Your task to perform on an android device: turn on data saver in the chrome app Image 0: 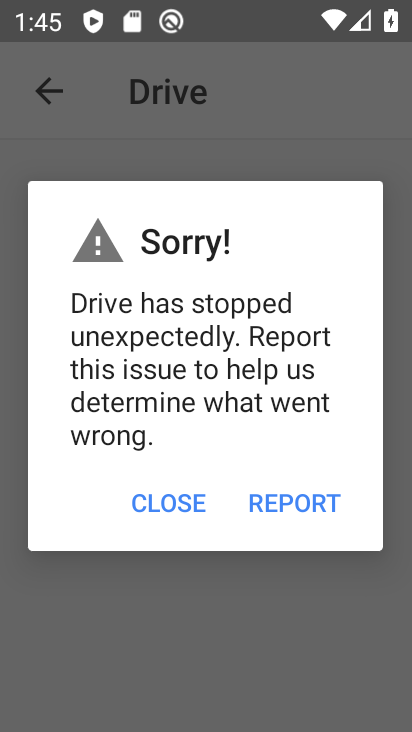
Step 0: press home button
Your task to perform on an android device: turn on data saver in the chrome app Image 1: 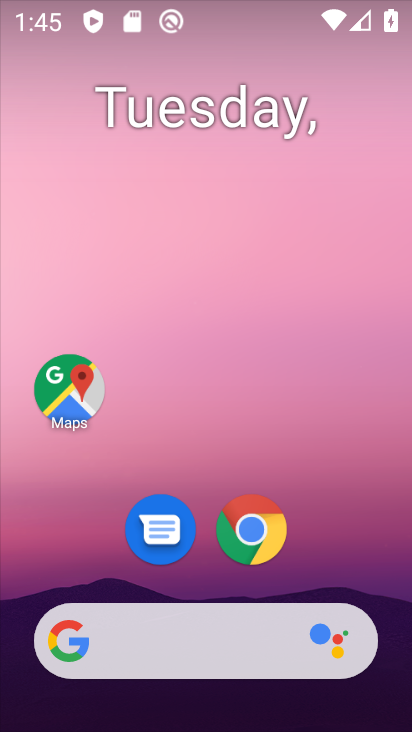
Step 1: click (251, 531)
Your task to perform on an android device: turn on data saver in the chrome app Image 2: 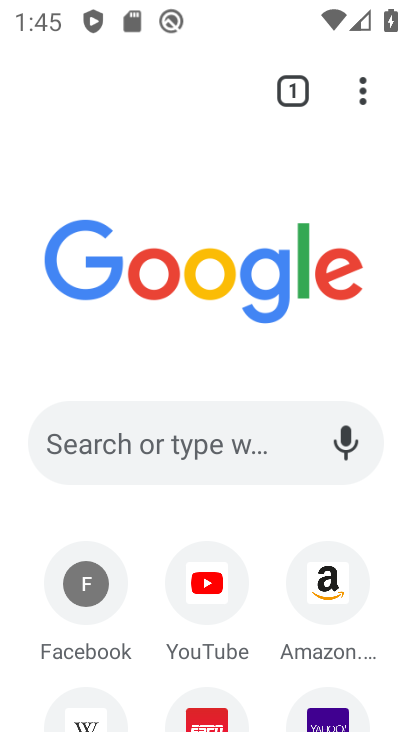
Step 2: click (356, 93)
Your task to perform on an android device: turn on data saver in the chrome app Image 3: 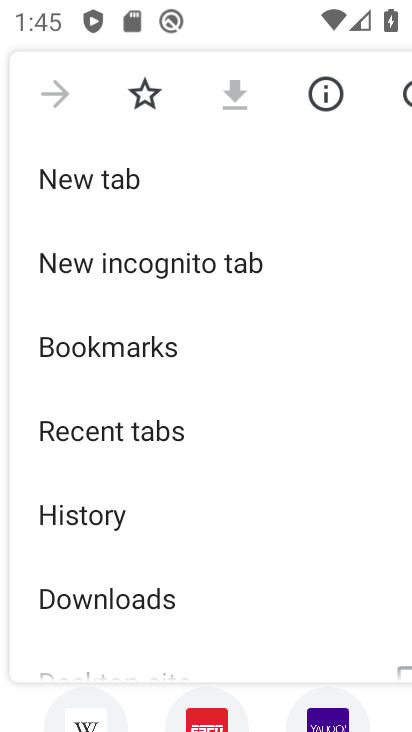
Step 3: drag from (174, 574) to (206, 266)
Your task to perform on an android device: turn on data saver in the chrome app Image 4: 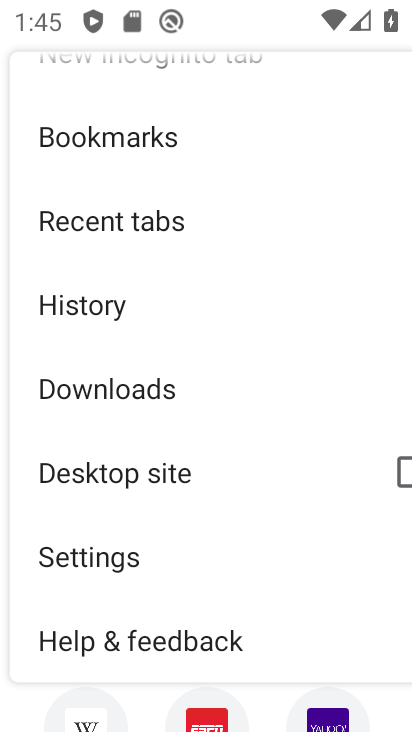
Step 4: click (112, 560)
Your task to perform on an android device: turn on data saver in the chrome app Image 5: 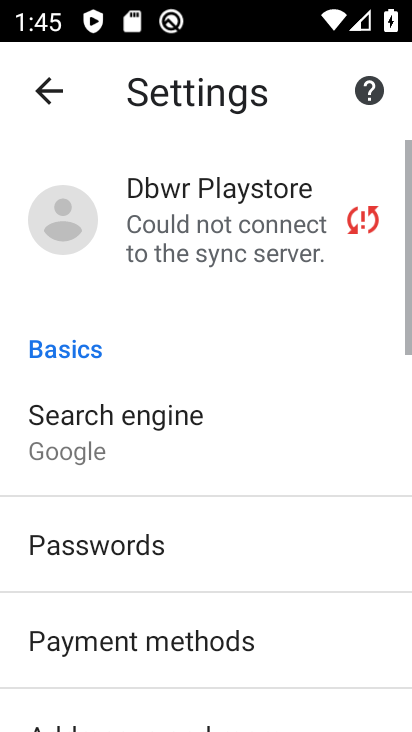
Step 5: drag from (222, 562) to (229, 146)
Your task to perform on an android device: turn on data saver in the chrome app Image 6: 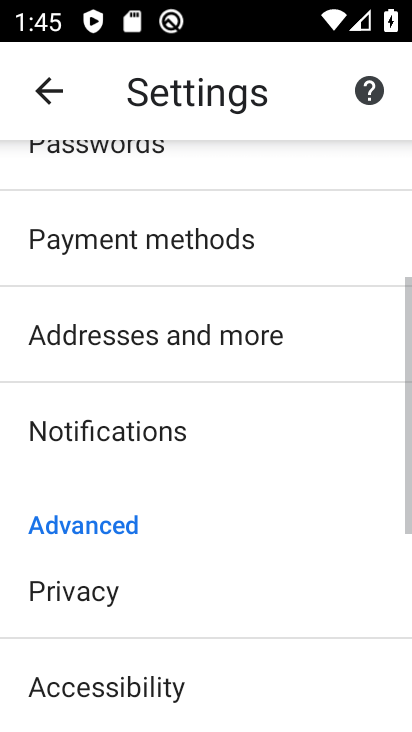
Step 6: drag from (143, 615) to (214, 180)
Your task to perform on an android device: turn on data saver in the chrome app Image 7: 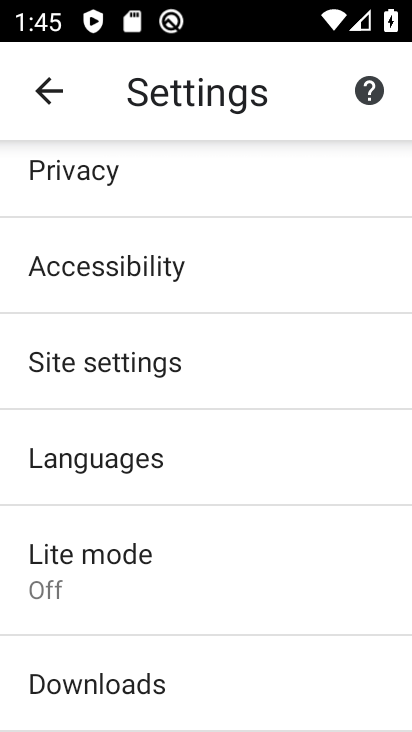
Step 7: click (114, 575)
Your task to perform on an android device: turn on data saver in the chrome app Image 8: 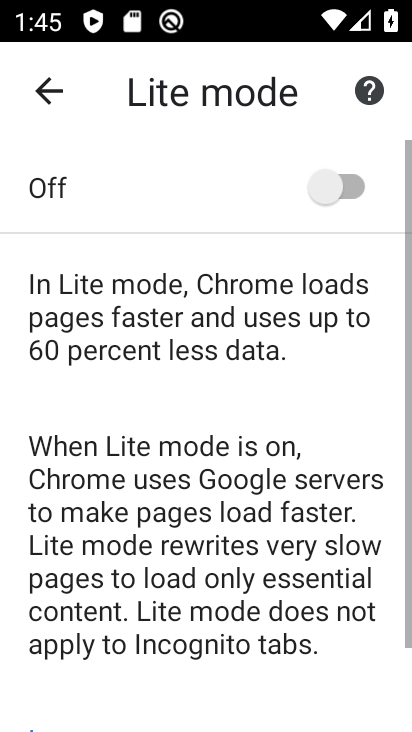
Step 8: click (335, 183)
Your task to perform on an android device: turn on data saver in the chrome app Image 9: 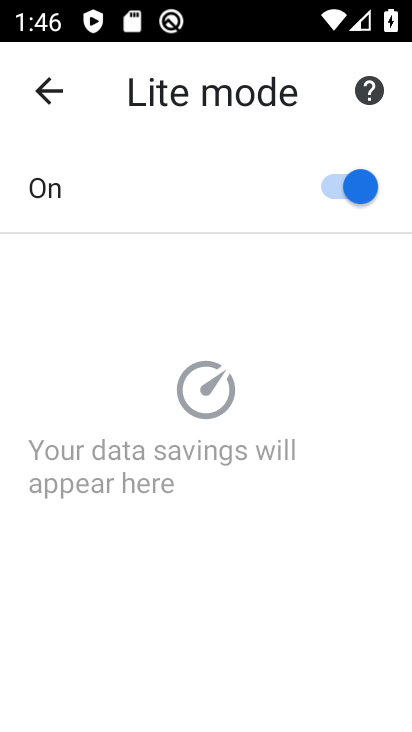
Step 9: task complete